Your task to perform on an android device: Go to notification settings Image 0: 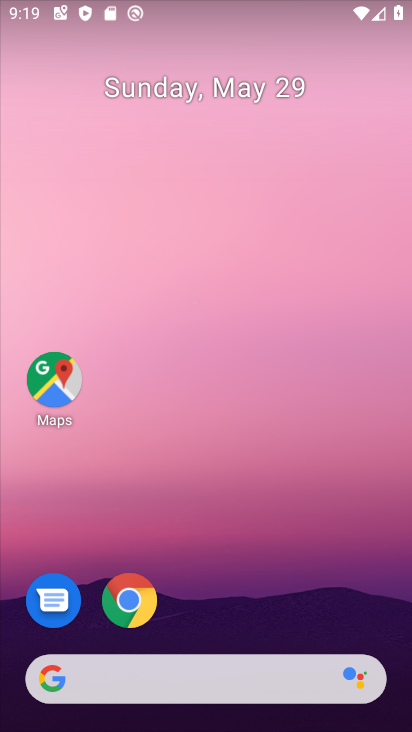
Step 0: drag from (203, 727) to (178, 128)
Your task to perform on an android device: Go to notification settings Image 1: 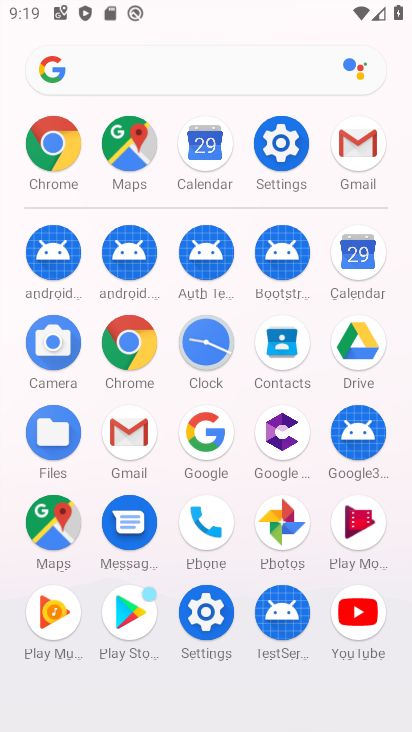
Step 1: click (280, 138)
Your task to perform on an android device: Go to notification settings Image 2: 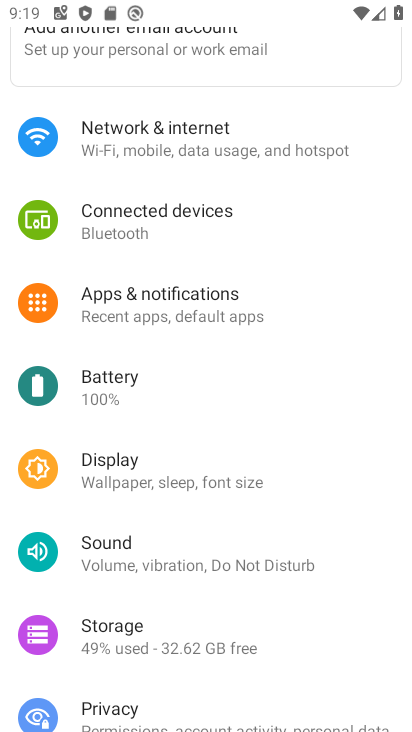
Step 2: click (176, 298)
Your task to perform on an android device: Go to notification settings Image 3: 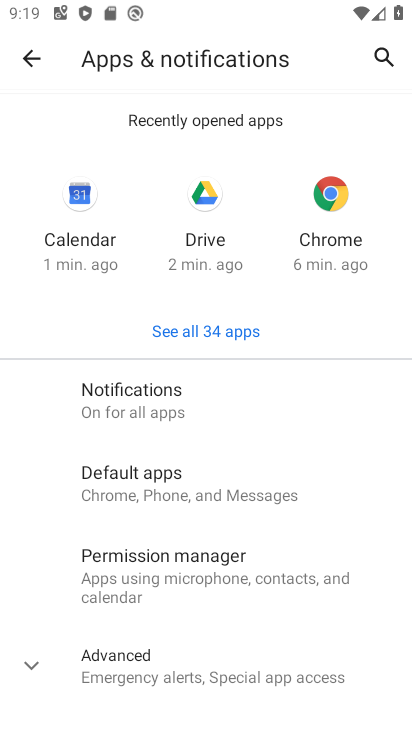
Step 3: click (108, 392)
Your task to perform on an android device: Go to notification settings Image 4: 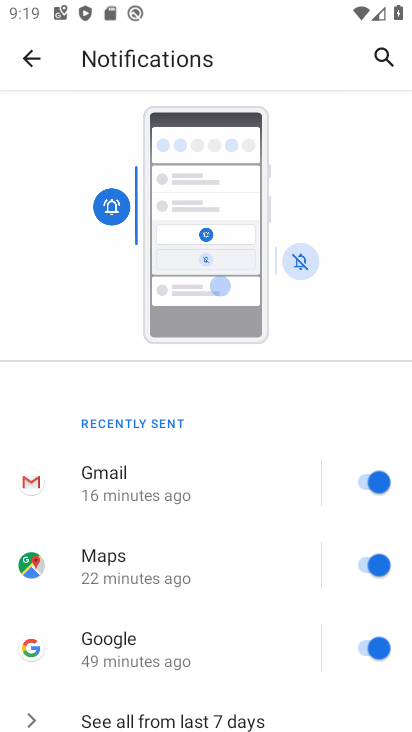
Step 4: task complete